Your task to perform on an android device: create a new album in the google photos Image 0: 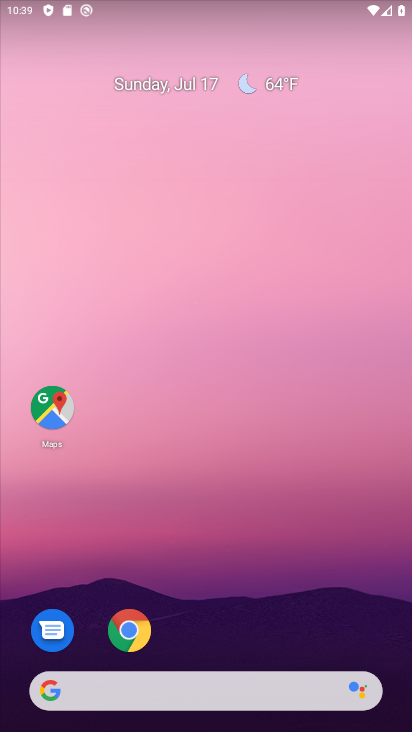
Step 0: drag from (270, 625) to (272, 216)
Your task to perform on an android device: create a new album in the google photos Image 1: 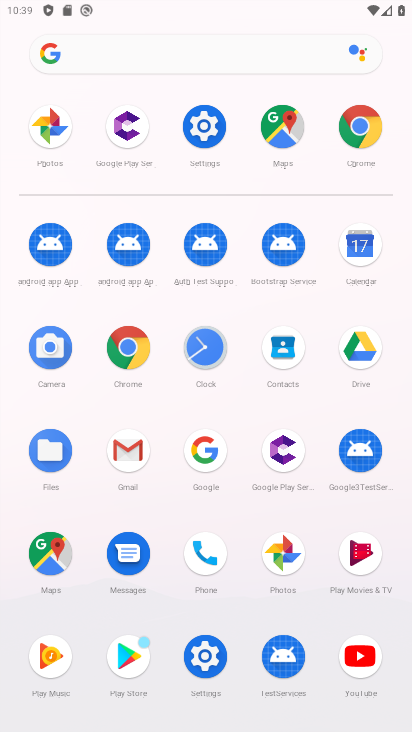
Step 1: click (283, 552)
Your task to perform on an android device: create a new album in the google photos Image 2: 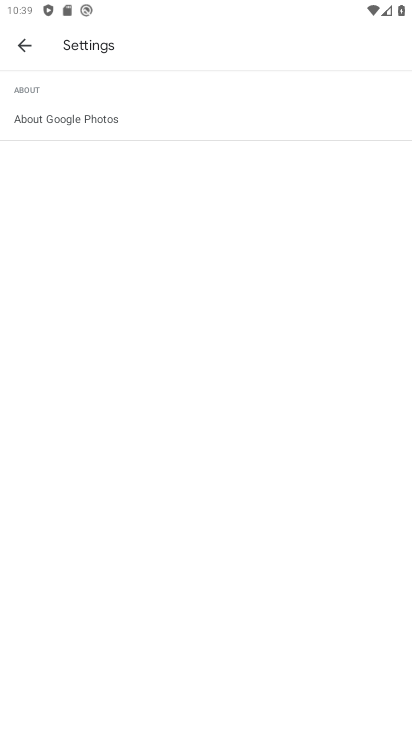
Step 2: task complete